Your task to perform on an android device: toggle show notifications on the lock screen Image 0: 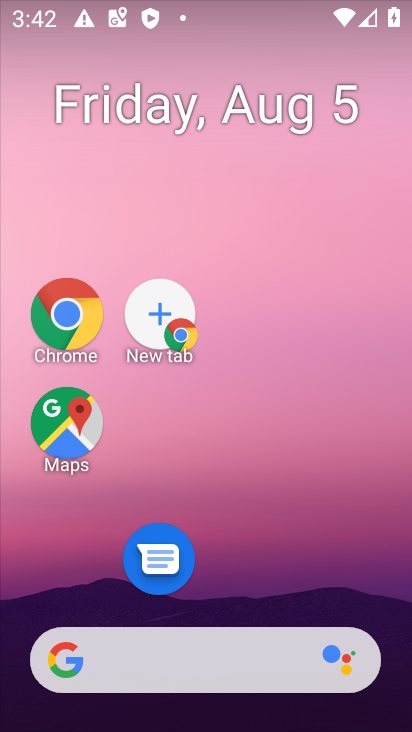
Step 0: drag from (257, 654) to (226, 178)
Your task to perform on an android device: toggle show notifications on the lock screen Image 1: 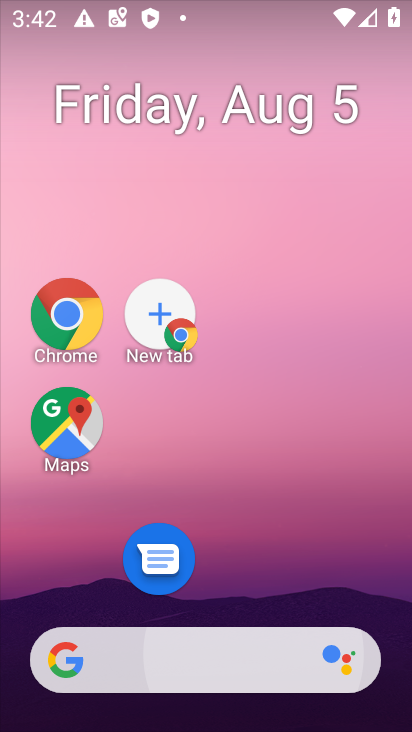
Step 1: drag from (187, 323) to (159, 125)
Your task to perform on an android device: toggle show notifications on the lock screen Image 2: 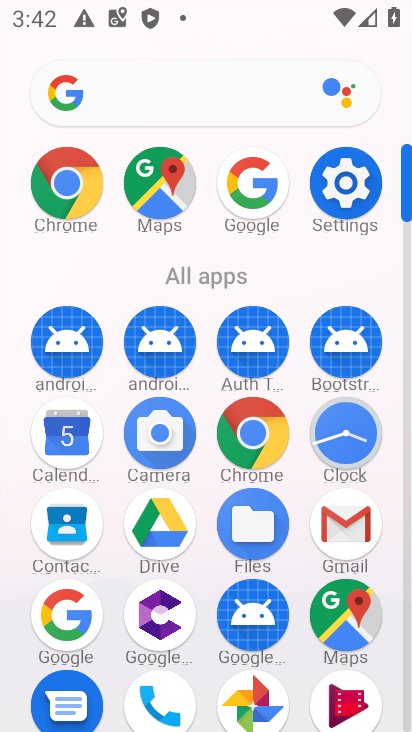
Step 2: click (336, 188)
Your task to perform on an android device: toggle show notifications on the lock screen Image 3: 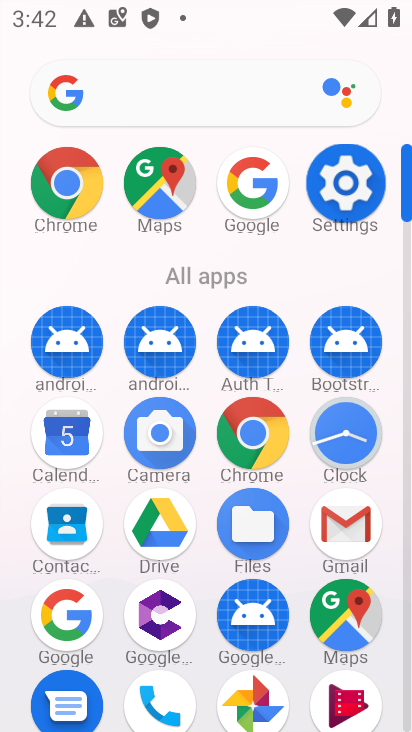
Step 3: click (336, 188)
Your task to perform on an android device: toggle show notifications on the lock screen Image 4: 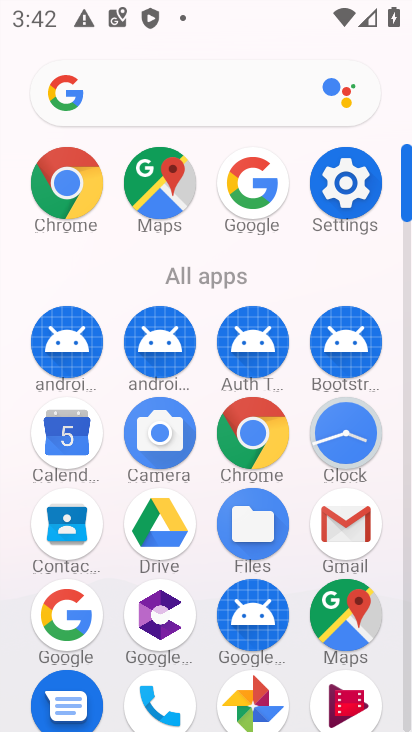
Step 4: click (336, 188)
Your task to perform on an android device: toggle show notifications on the lock screen Image 5: 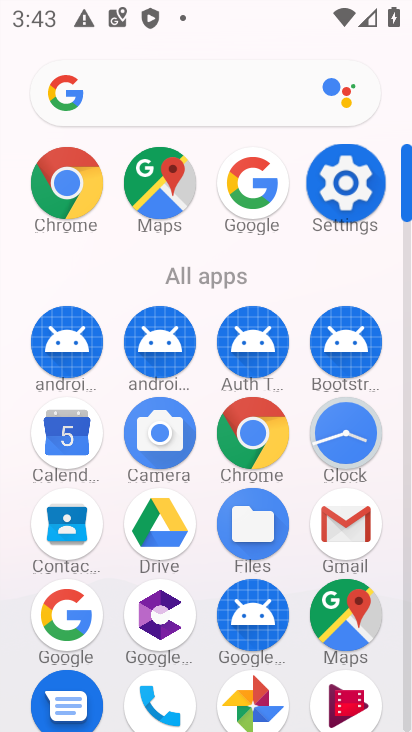
Step 5: click (336, 188)
Your task to perform on an android device: toggle show notifications on the lock screen Image 6: 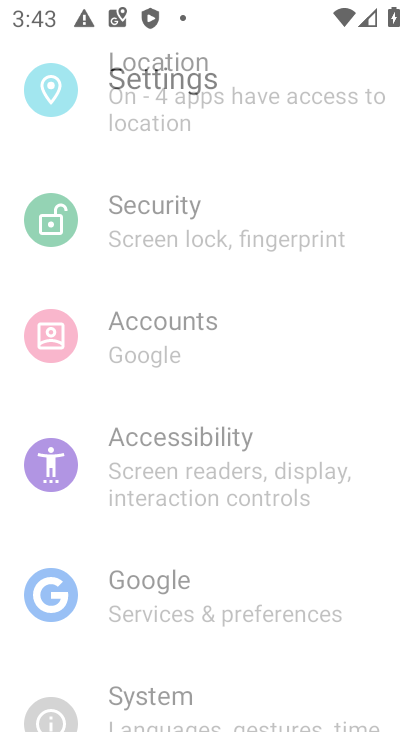
Step 6: click (336, 188)
Your task to perform on an android device: toggle show notifications on the lock screen Image 7: 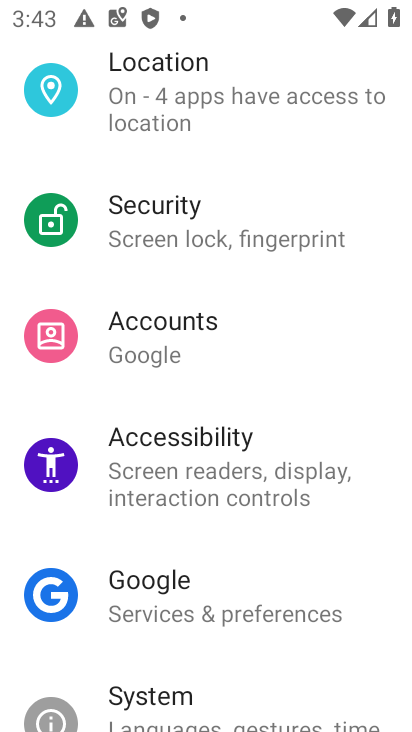
Step 7: drag from (217, 459) to (178, 140)
Your task to perform on an android device: toggle show notifications on the lock screen Image 8: 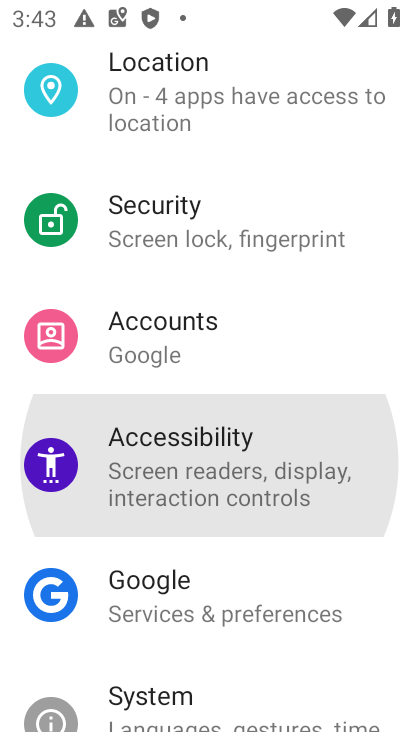
Step 8: drag from (200, 480) to (175, 219)
Your task to perform on an android device: toggle show notifications on the lock screen Image 9: 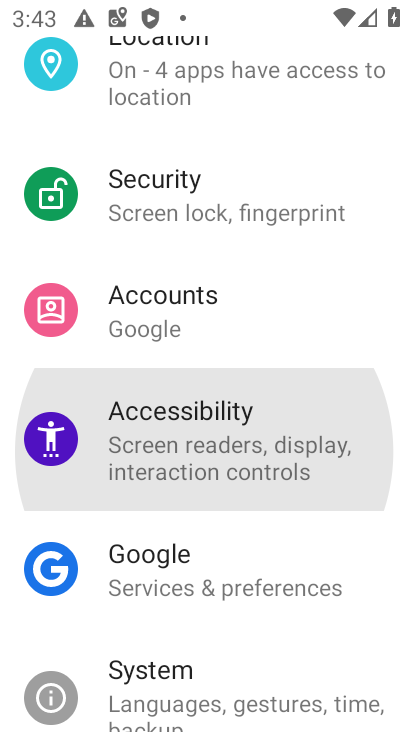
Step 9: drag from (207, 439) to (191, 252)
Your task to perform on an android device: toggle show notifications on the lock screen Image 10: 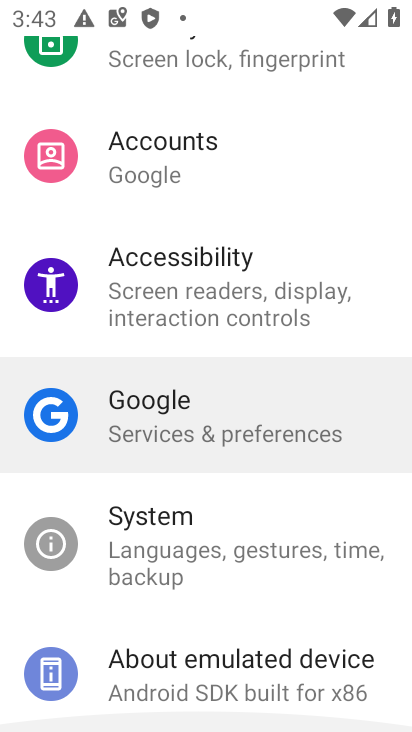
Step 10: drag from (186, 208) to (214, 604)
Your task to perform on an android device: toggle show notifications on the lock screen Image 11: 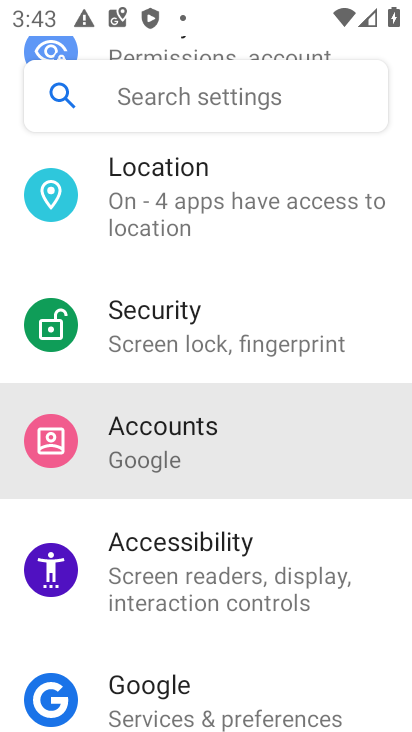
Step 11: drag from (150, 278) to (177, 569)
Your task to perform on an android device: toggle show notifications on the lock screen Image 12: 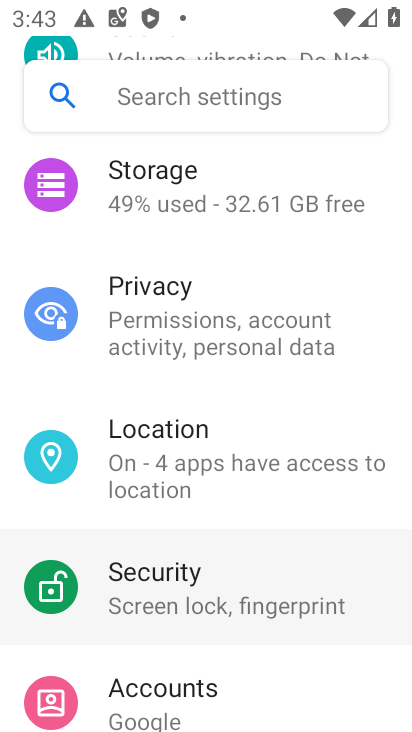
Step 12: drag from (109, 274) to (148, 576)
Your task to perform on an android device: toggle show notifications on the lock screen Image 13: 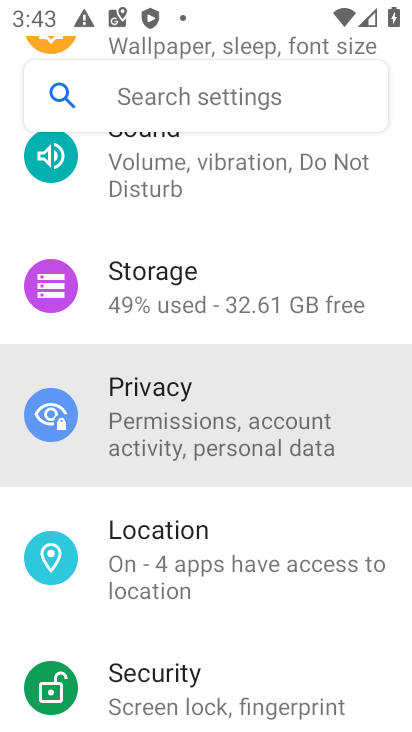
Step 13: drag from (132, 347) to (139, 590)
Your task to perform on an android device: toggle show notifications on the lock screen Image 14: 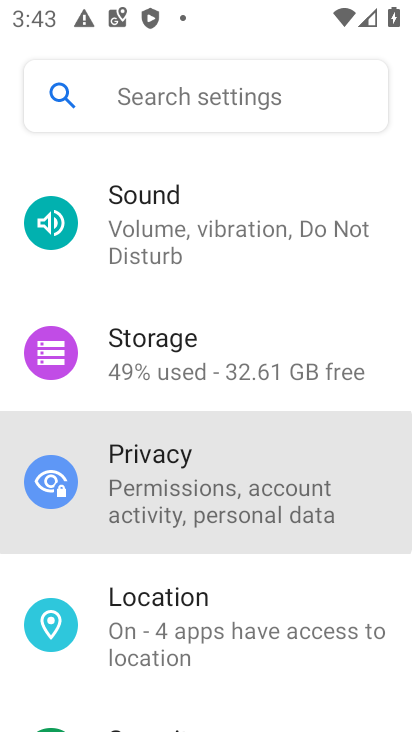
Step 14: drag from (120, 312) to (213, 717)
Your task to perform on an android device: toggle show notifications on the lock screen Image 15: 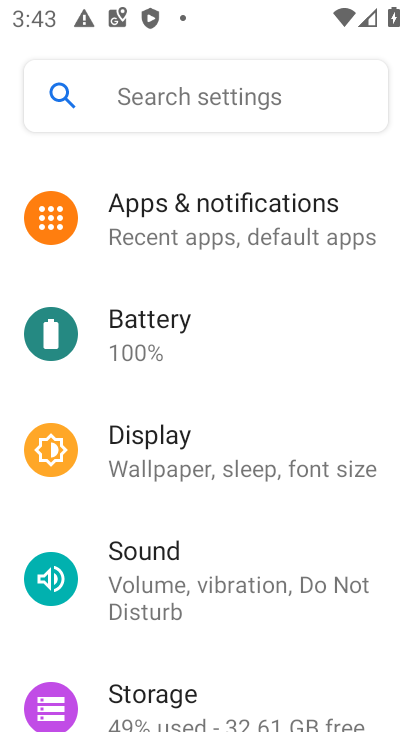
Step 15: drag from (236, 534) to (195, 271)
Your task to perform on an android device: toggle show notifications on the lock screen Image 16: 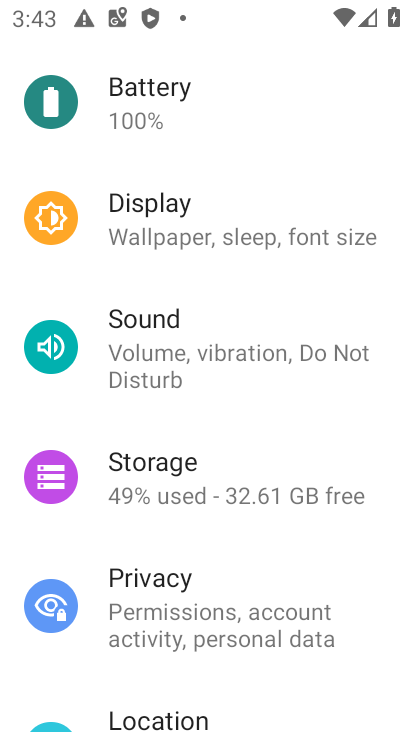
Step 16: drag from (200, 494) to (201, 272)
Your task to perform on an android device: toggle show notifications on the lock screen Image 17: 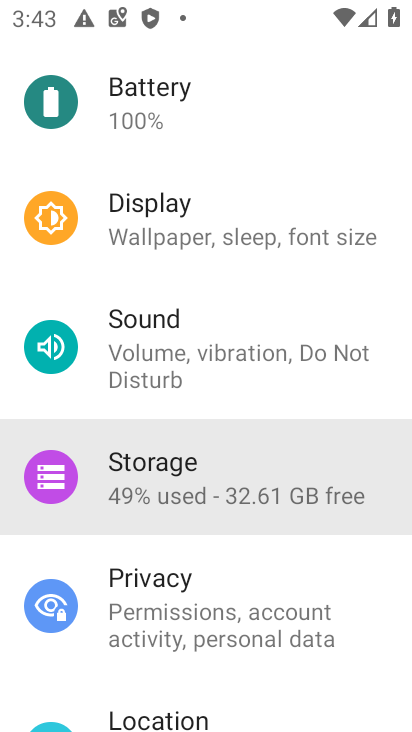
Step 17: drag from (237, 464) to (237, 148)
Your task to perform on an android device: toggle show notifications on the lock screen Image 18: 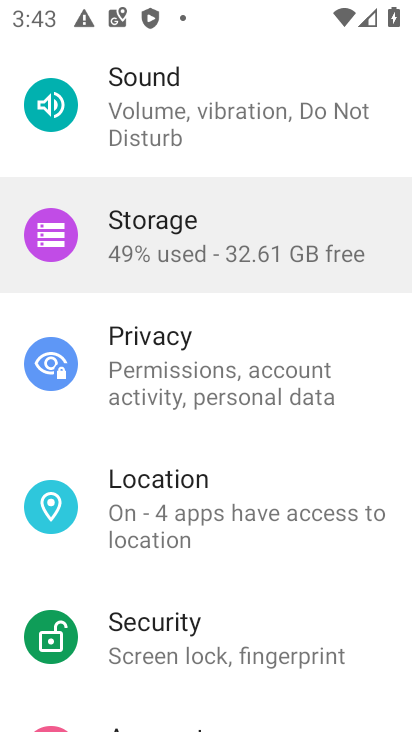
Step 18: drag from (262, 488) to (261, 274)
Your task to perform on an android device: toggle show notifications on the lock screen Image 19: 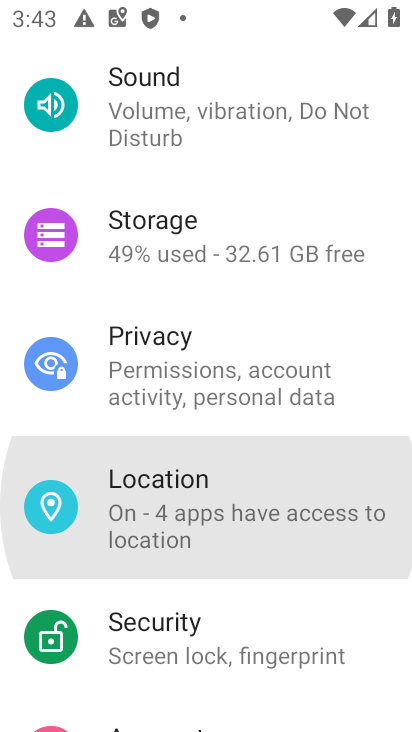
Step 19: drag from (263, 598) to (242, 394)
Your task to perform on an android device: toggle show notifications on the lock screen Image 20: 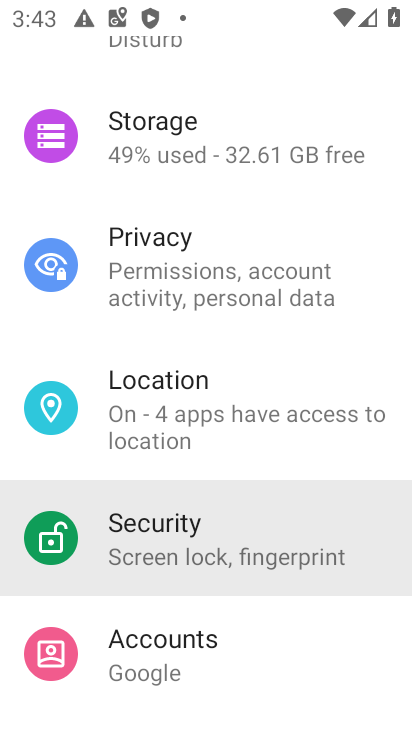
Step 20: drag from (249, 579) to (247, 278)
Your task to perform on an android device: toggle show notifications on the lock screen Image 21: 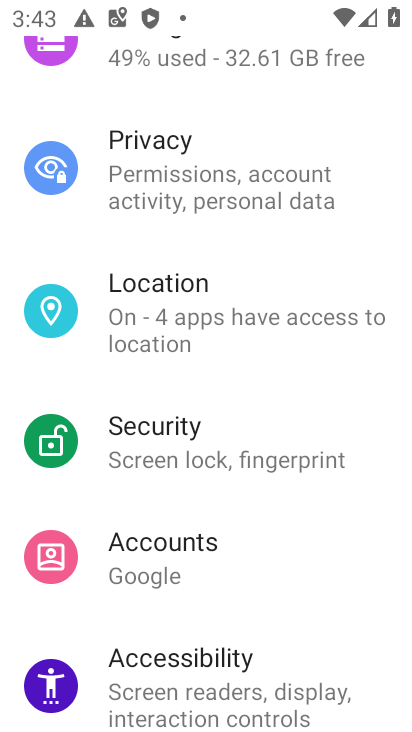
Step 21: drag from (190, 356) to (161, 257)
Your task to perform on an android device: toggle show notifications on the lock screen Image 22: 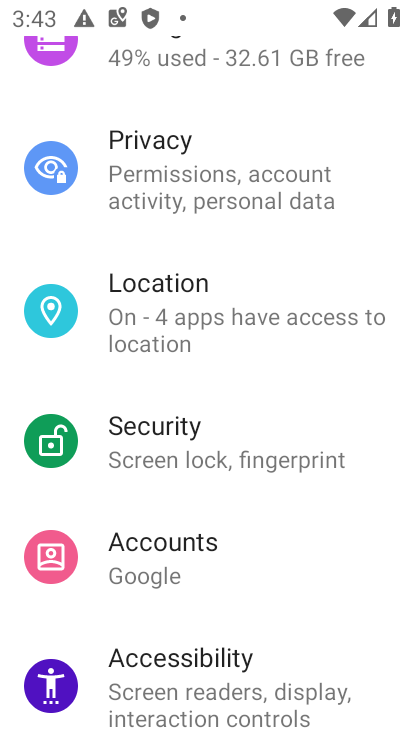
Step 22: drag from (239, 535) to (223, 250)
Your task to perform on an android device: toggle show notifications on the lock screen Image 23: 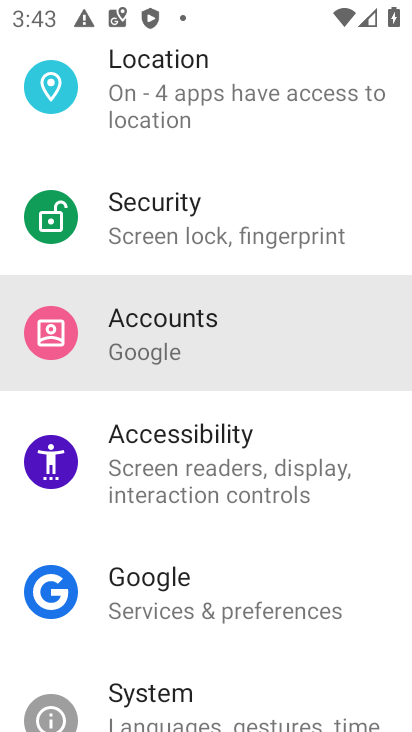
Step 23: drag from (235, 509) to (209, 187)
Your task to perform on an android device: toggle show notifications on the lock screen Image 24: 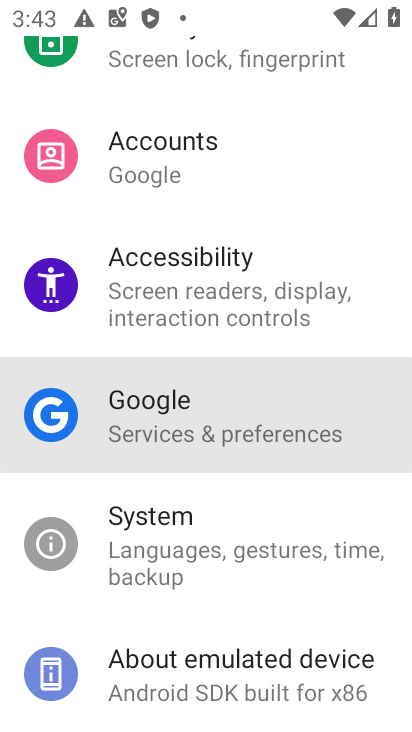
Step 24: drag from (222, 515) to (201, 203)
Your task to perform on an android device: toggle show notifications on the lock screen Image 25: 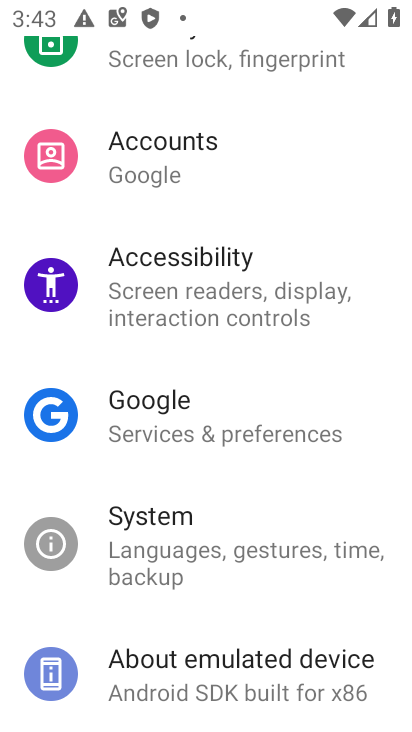
Step 25: drag from (126, 194) to (198, 644)
Your task to perform on an android device: toggle show notifications on the lock screen Image 26: 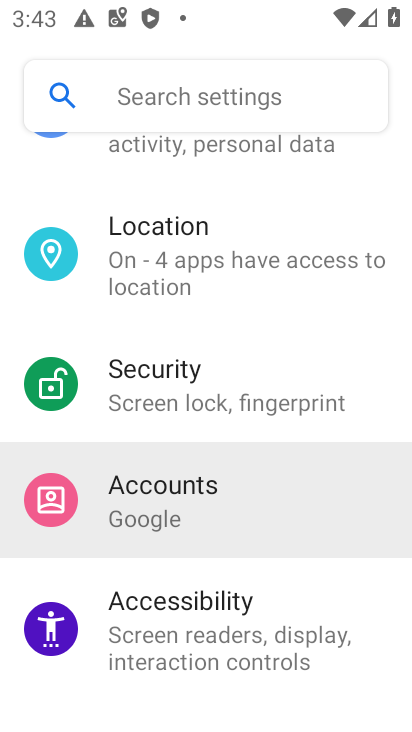
Step 26: drag from (136, 350) to (237, 711)
Your task to perform on an android device: toggle show notifications on the lock screen Image 27: 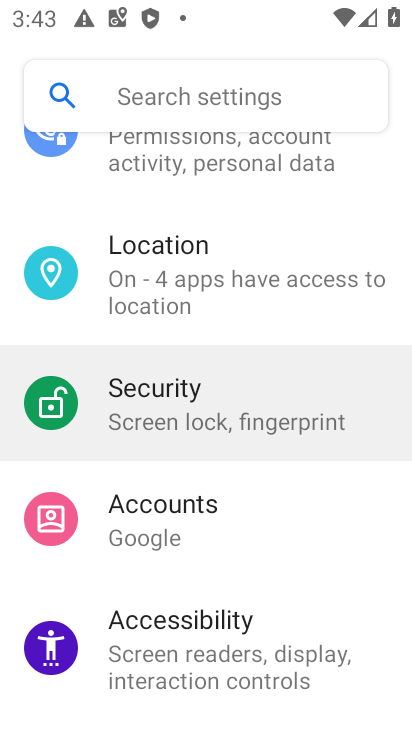
Step 27: drag from (171, 400) to (200, 638)
Your task to perform on an android device: toggle show notifications on the lock screen Image 28: 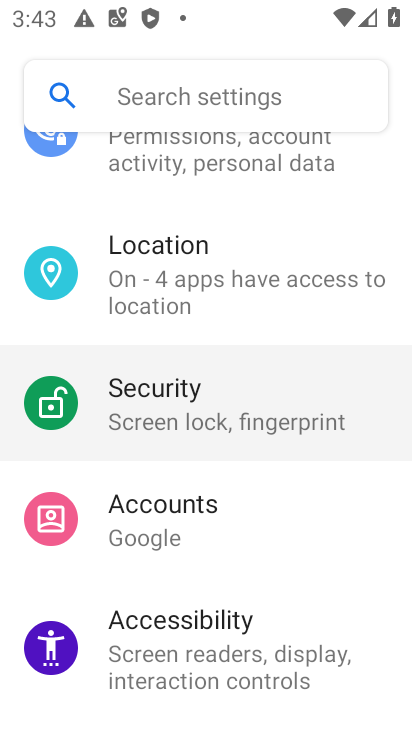
Step 28: drag from (144, 328) to (223, 629)
Your task to perform on an android device: toggle show notifications on the lock screen Image 29: 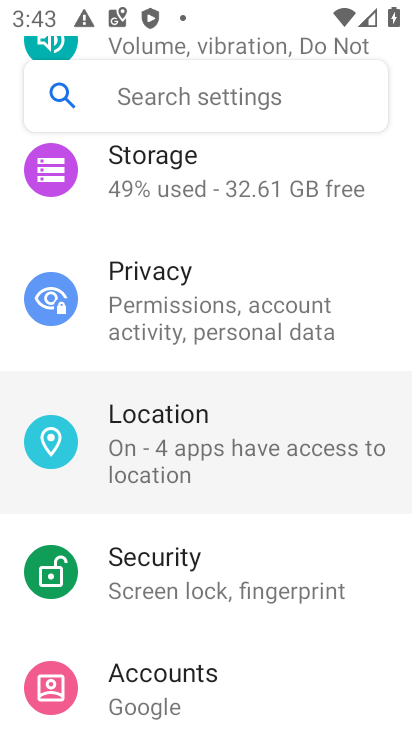
Step 29: drag from (176, 369) to (213, 629)
Your task to perform on an android device: toggle show notifications on the lock screen Image 30: 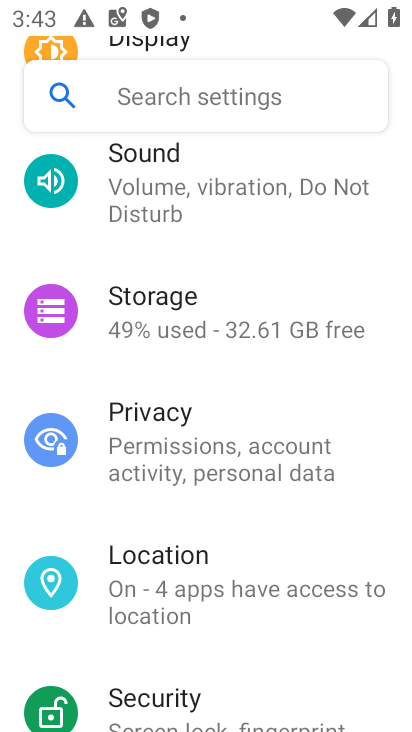
Step 30: drag from (133, 291) to (218, 632)
Your task to perform on an android device: toggle show notifications on the lock screen Image 31: 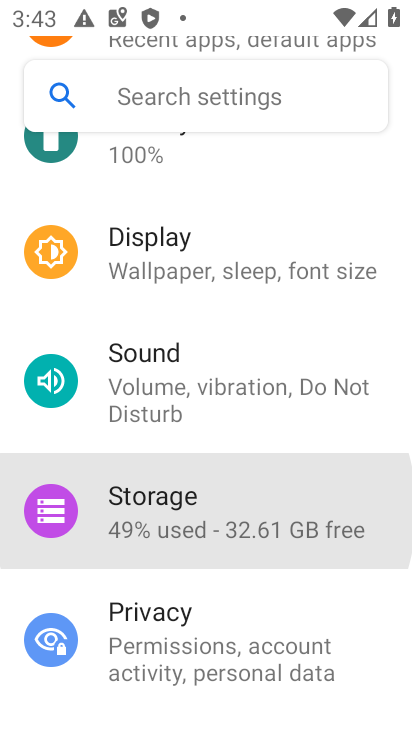
Step 31: drag from (160, 340) to (199, 623)
Your task to perform on an android device: toggle show notifications on the lock screen Image 32: 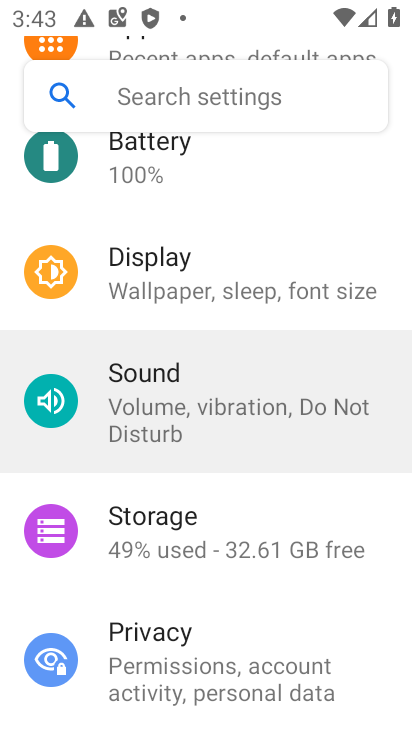
Step 32: drag from (130, 360) to (163, 605)
Your task to perform on an android device: toggle show notifications on the lock screen Image 33: 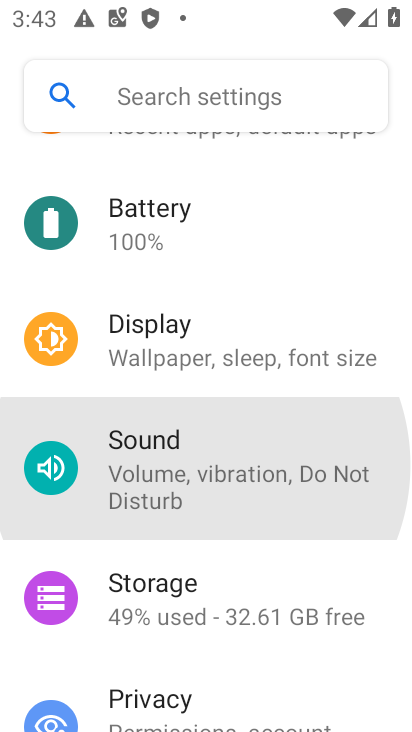
Step 33: drag from (144, 339) to (186, 568)
Your task to perform on an android device: toggle show notifications on the lock screen Image 34: 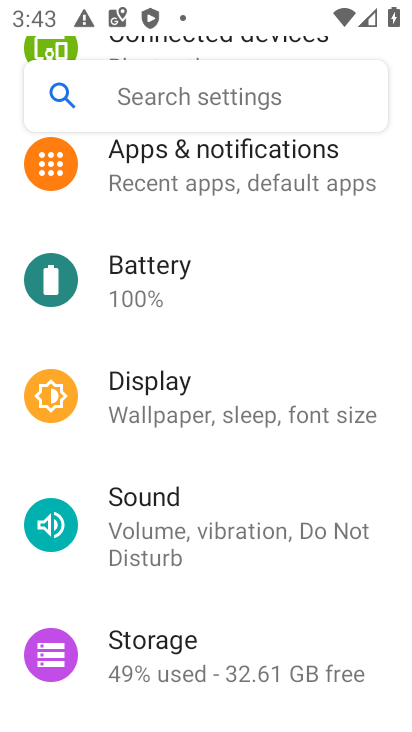
Step 34: drag from (144, 281) to (198, 621)
Your task to perform on an android device: toggle show notifications on the lock screen Image 35: 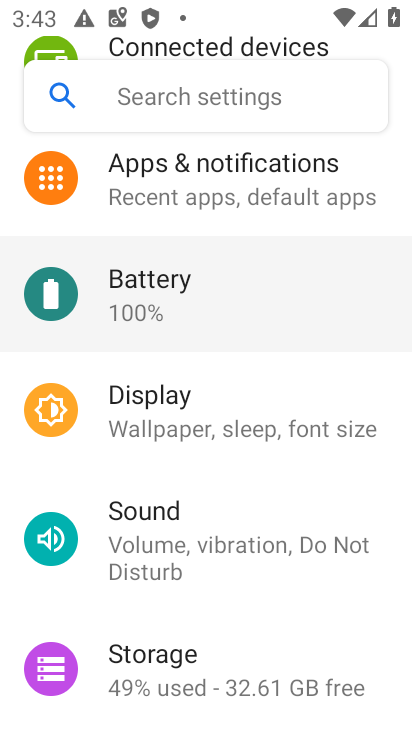
Step 35: drag from (191, 332) to (277, 616)
Your task to perform on an android device: toggle show notifications on the lock screen Image 36: 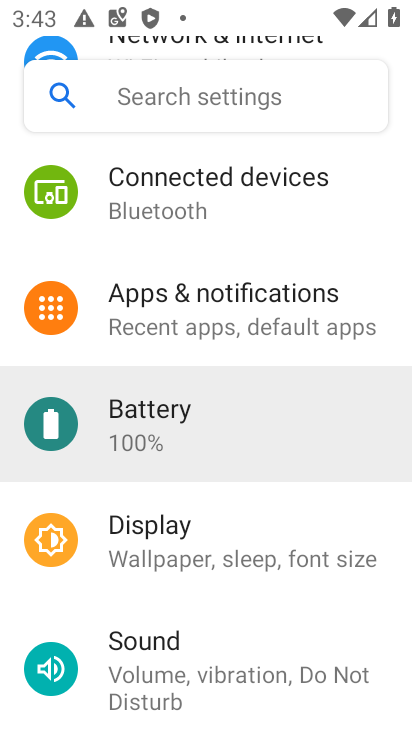
Step 36: drag from (233, 321) to (273, 582)
Your task to perform on an android device: toggle show notifications on the lock screen Image 37: 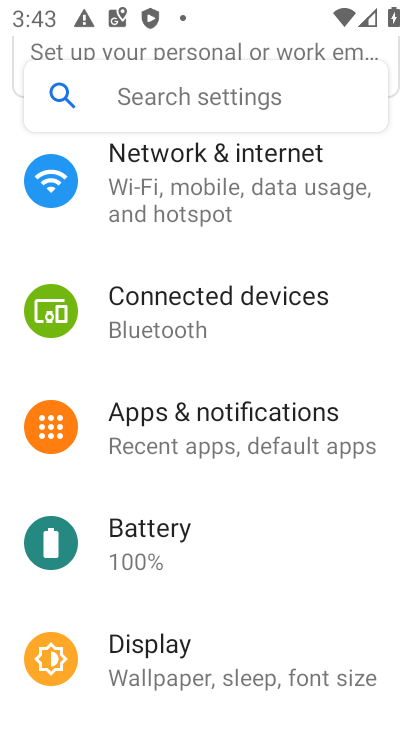
Step 37: drag from (235, 296) to (267, 530)
Your task to perform on an android device: toggle show notifications on the lock screen Image 38: 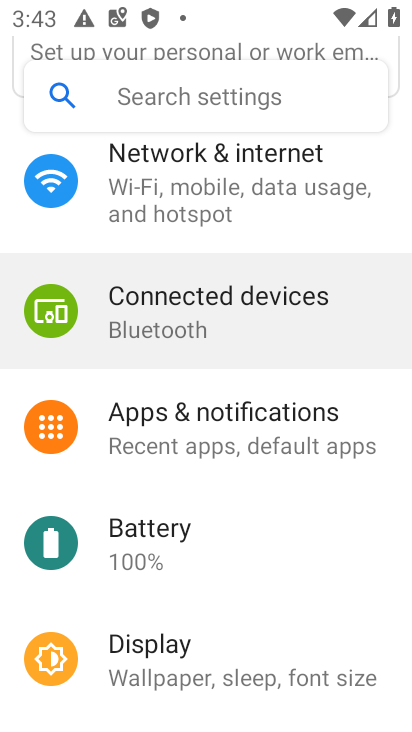
Step 38: drag from (243, 370) to (230, 274)
Your task to perform on an android device: toggle show notifications on the lock screen Image 39: 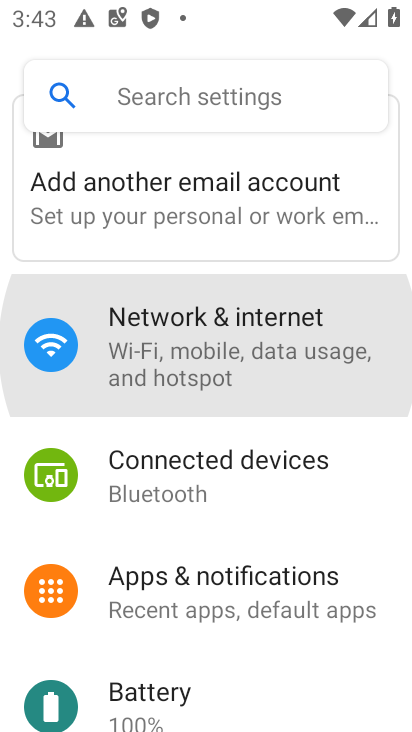
Step 39: drag from (221, 385) to (221, 339)
Your task to perform on an android device: toggle show notifications on the lock screen Image 40: 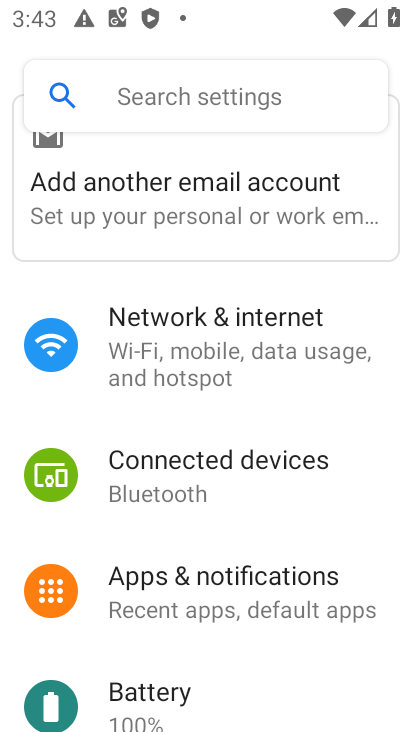
Step 40: drag from (235, 606) to (235, 346)
Your task to perform on an android device: toggle show notifications on the lock screen Image 41: 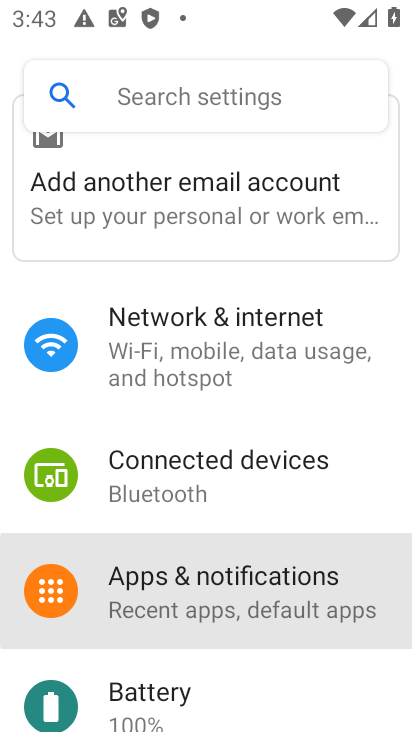
Step 41: drag from (245, 587) to (253, 395)
Your task to perform on an android device: toggle show notifications on the lock screen Image 42: 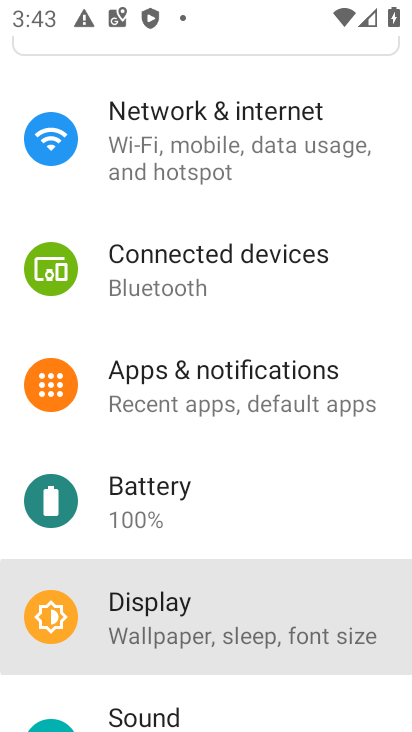
Step 42: click (196, 549)
Your task to perform on an android device: toggle show notifications on the lock screen Image 43: 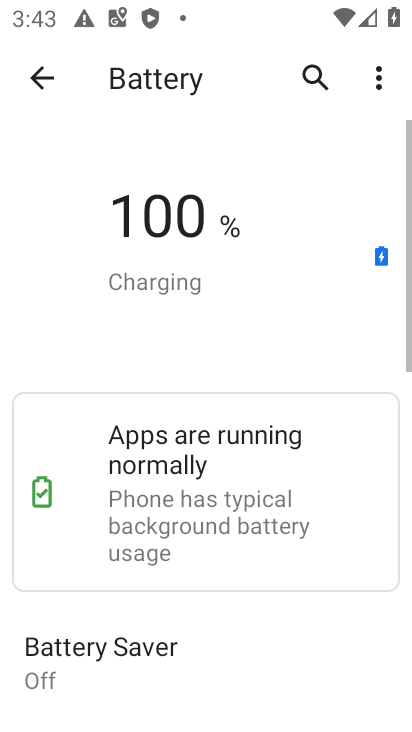
Step 43: click (249, 375)
Your task to perform on an android device: toggle show notifications on the lock screen Image 44: 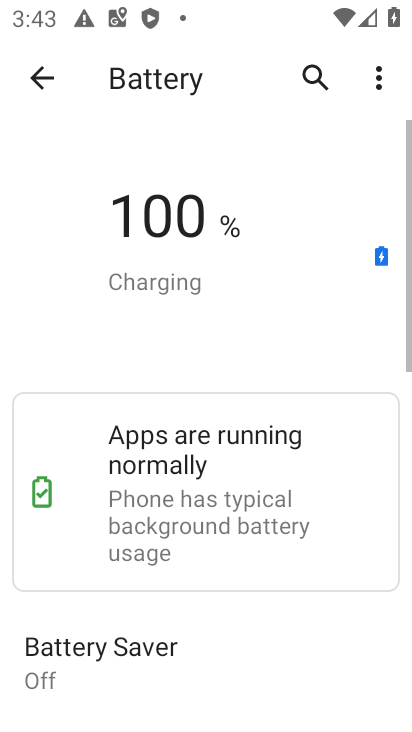
Step 44: click (46, 85)
Your task to perform on an android device: toggle show notifications on the lock screen Image 45: 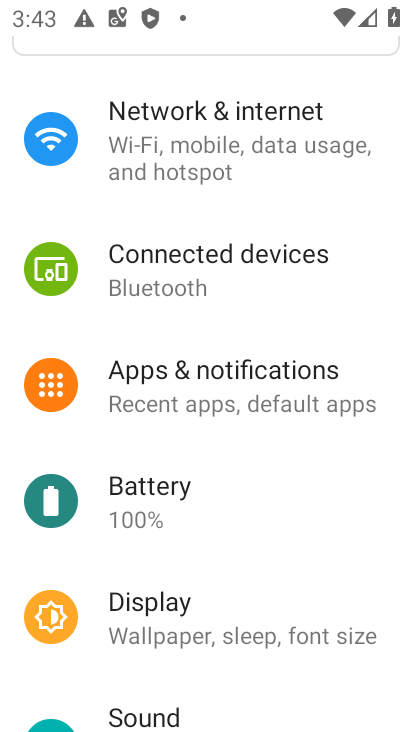
Step 45: click (215, 377)
Your task to perform on an android device: toggle show notifications on the lock screen Image 46: 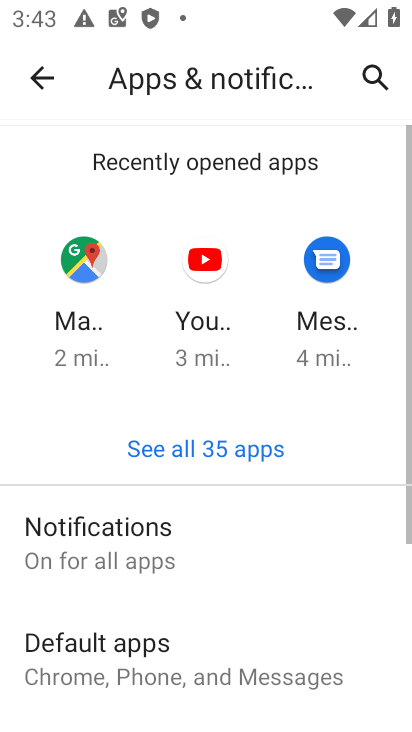
Step 46: drag from (150, 594) to (144, 280)
Your task to perform on an android device: toggle show notifications on the lock screen Image 47: 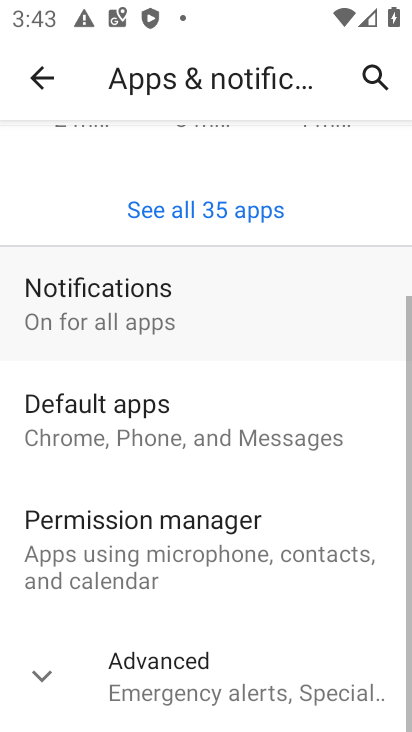
Step 47: drag from (123, 538) to (104, 284)
Your task to perform on an android device: toggle show notifications on the lock screen Image 48: 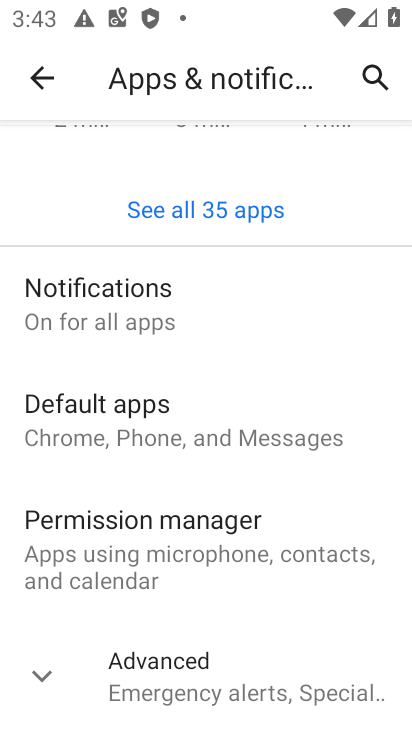
Step 48: click (128, 316)
Your task to perform on an android device: toggle show notifications on the lock screen Image 49: 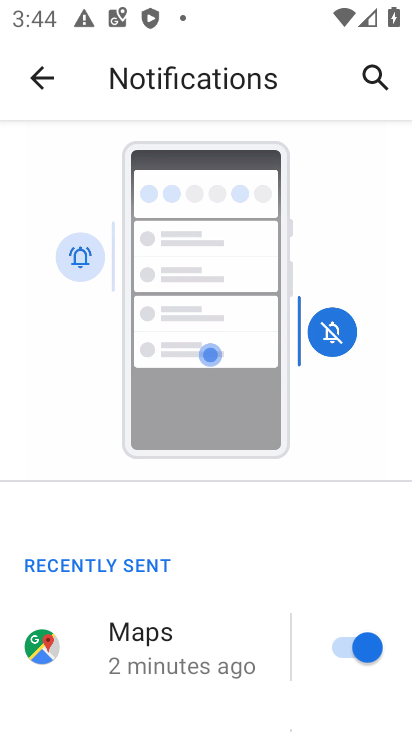
Step 49: drag from (244, 534) to (204, 221)
Your task to perform on an android device: toggle show notifications on the lock screen Image 50: 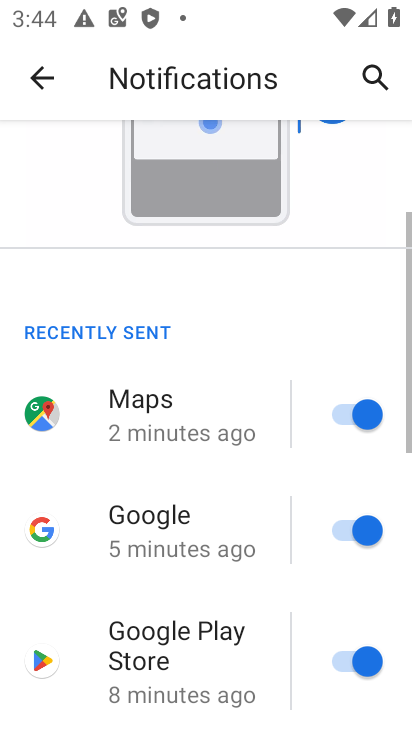
Step 50: click (233, 274)
Your task to perform on an android device: toggle show notifications on the lock screen Image 51: 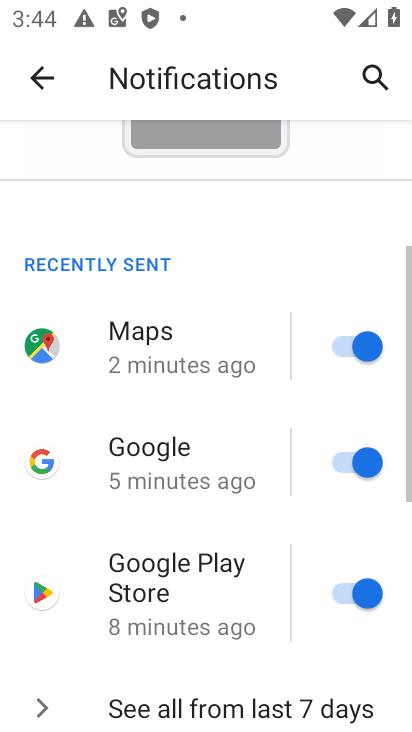
Step 51: drag from (263, 417) to (238, 178)
Your task to perform on an android device: toggle show notifications on the lock screen Image 52: 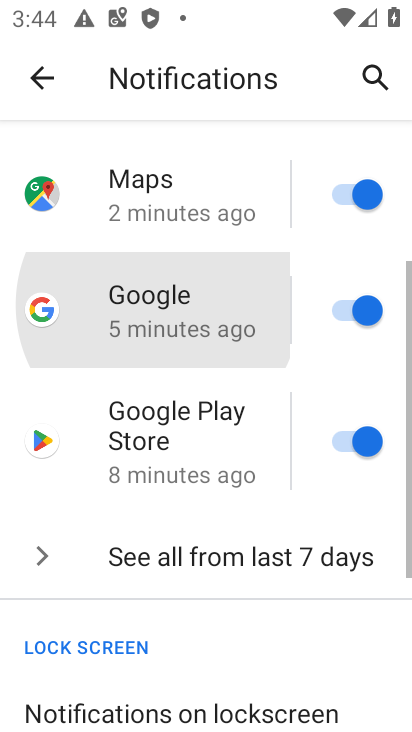
Step 52: drag from (226, 461) to (213, 287)
Your task to perform on an android device: toggle show notifications on the lock screen Image 53: 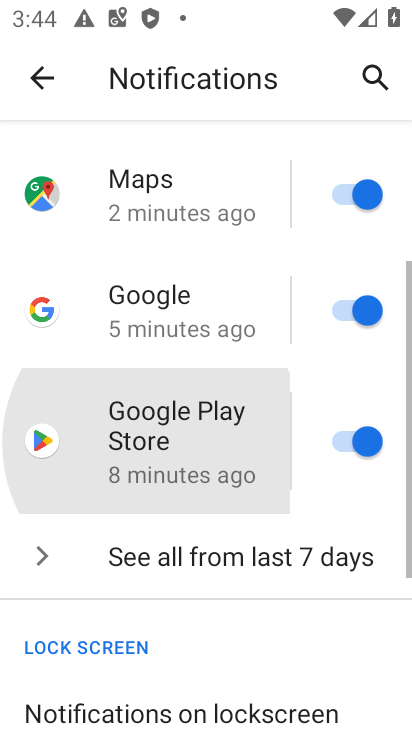
Step 53: drag from (221, 474) to (191, 282)
Your task to perform on an android device: toggle show notifications on the lock screen Image 54: 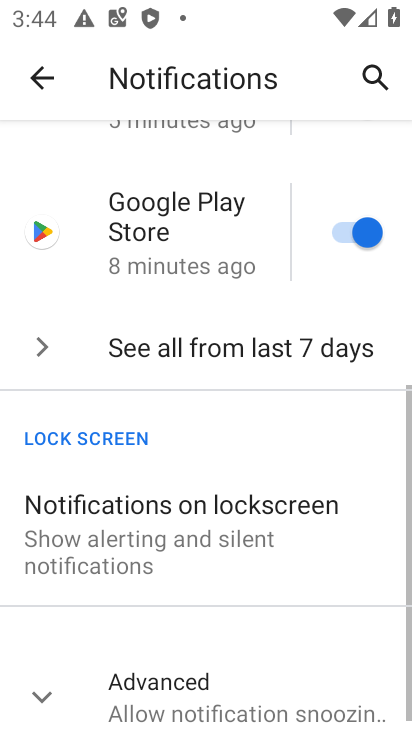
Step 54: drag from (208, 452) to (209, 288)
Your task to perform on an android device: toggle show notifications on the lock screen Image 55: 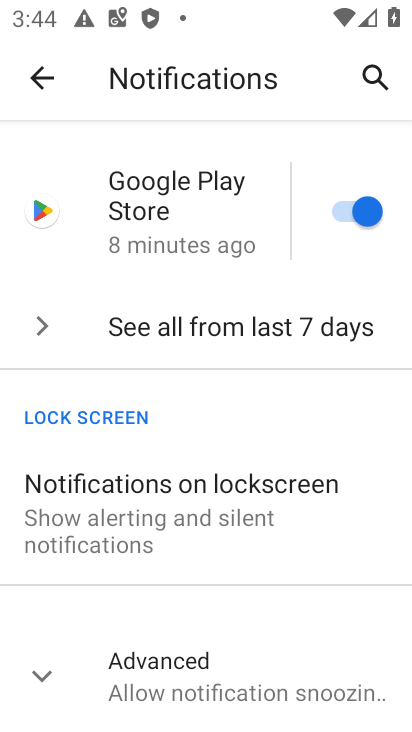
Step 55: click (197, 506)
Your task to perform on an android device: toggle show notifications on the lock screen Image 56: 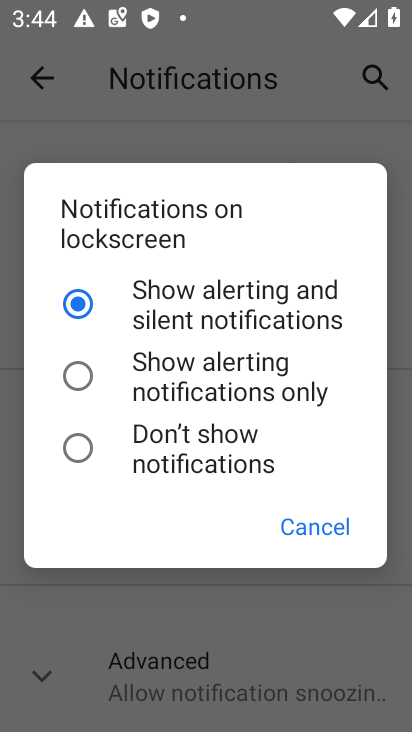
Step 56: click (71, 372)
Your task to perform on an android device: toggle show notifications on the lock screen Image 57: 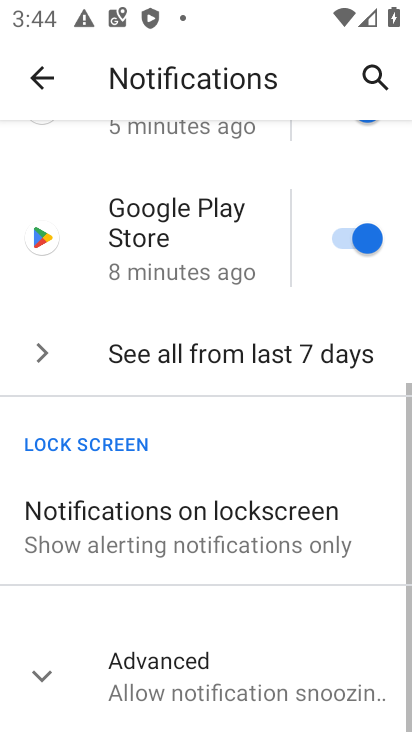
Step 57: task complete